Your task to perform on an android device: toggle notifications settings in the gmail app Image 0: 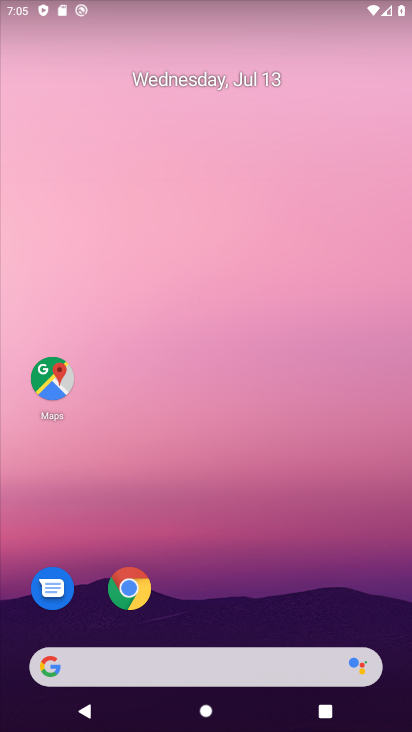
Step 0: drag from (275, 551) to (197, 123)
Your task to perform on an android device: toggle notifications settings in the gmail app Image 1: 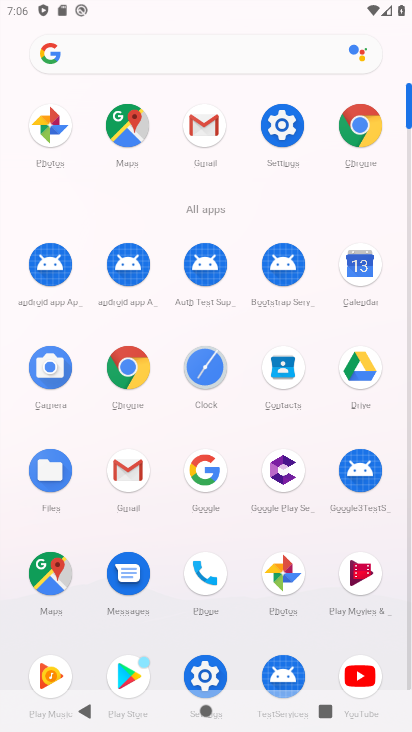
Step 1: click (121, 474)
Your task to perform on an android device: toggle notifications settings in the gmail app Image 2: 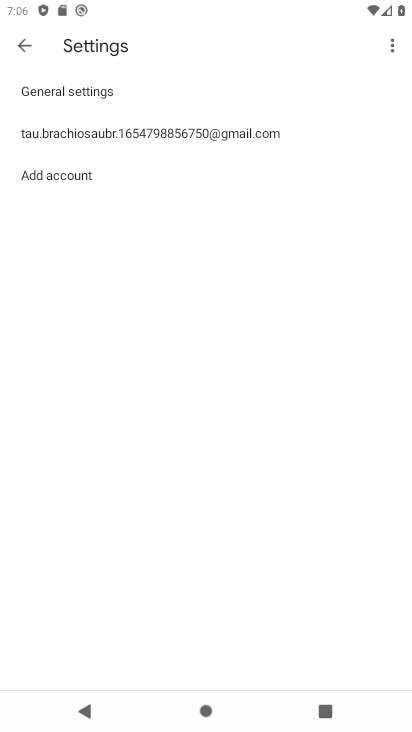
Step 2: click (61, 88)
Your task to perform on an android device: toggle notifications settings in the gmail app Image 3: 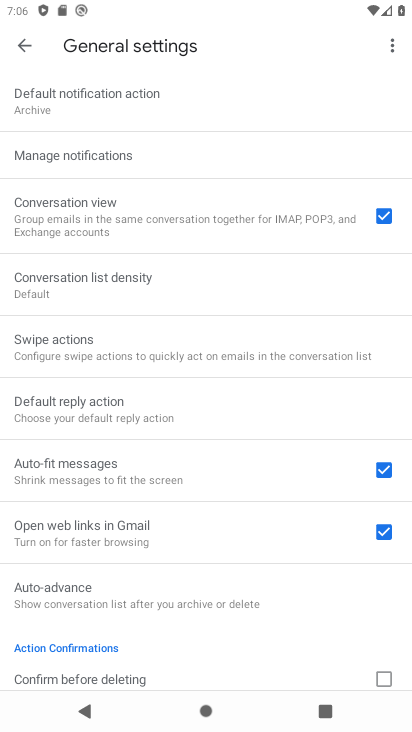
Step 3: click (64, 152)
Your task to perform on an android device: toggle notifications settings in the gmail app Image 4: 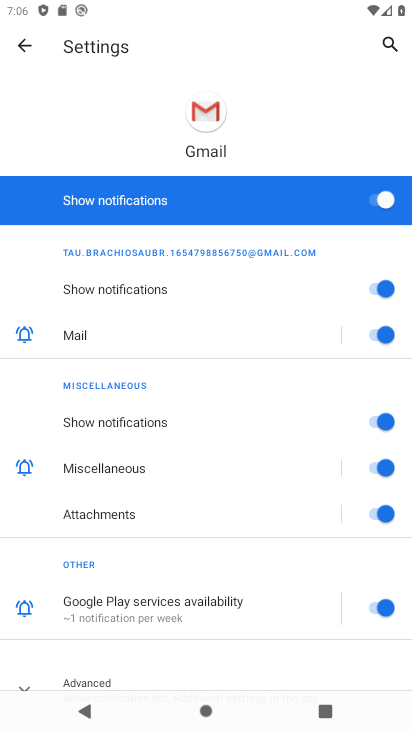
Step 4: click (389, 202)
Your task to perform on an android device: toggle notifications settings in the gmail app Image 5: 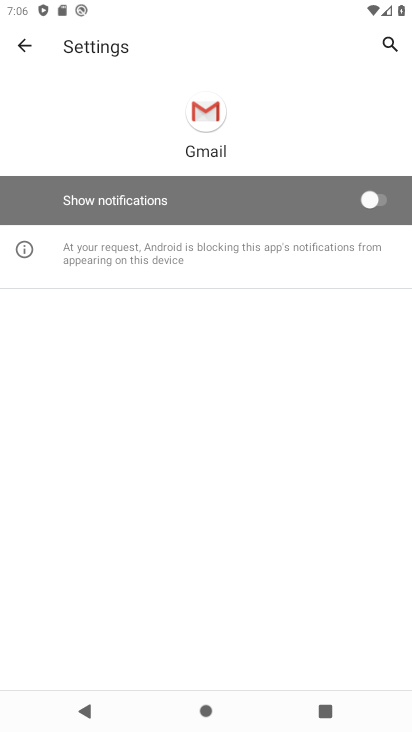
Step 5: task complete